Your task to perform on an android device: turn pop-ups on in chrome Image 0: 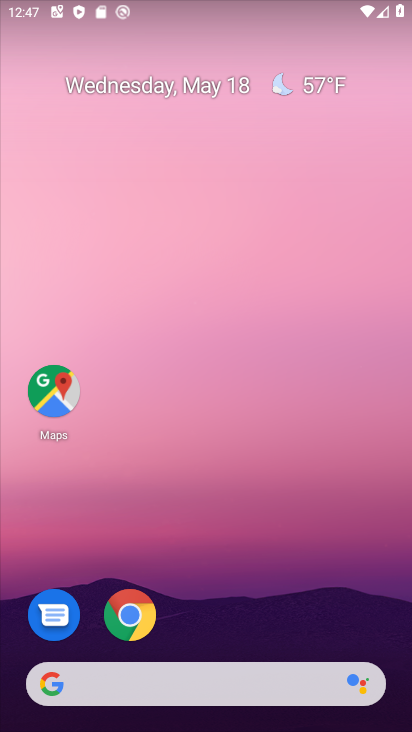
Step 0: drag from (357, 609) to (261, 49)
Your task to perform on an android device: turn pop-ups on in chrome Image 1: 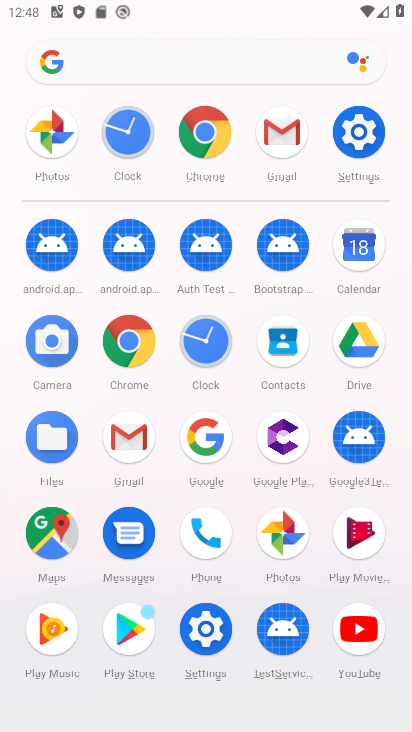
Step 1: click (223, 143)
Your task to perform on an android device: turn pop-ups on in chrome Image 2: 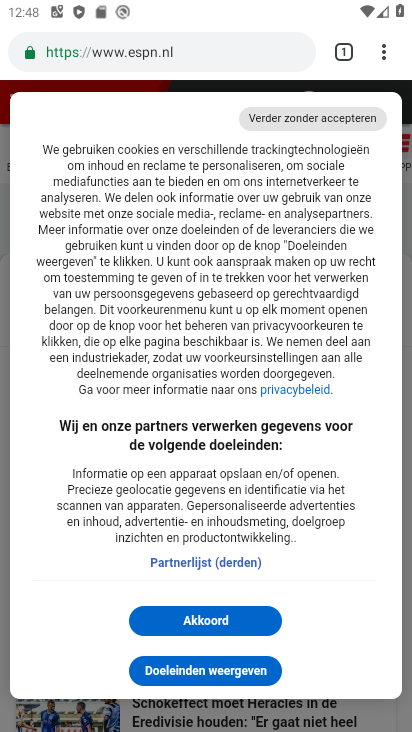
Step 2: press back button
Your task to perform on an android device: turn pop-ups on in chrome Image 3: 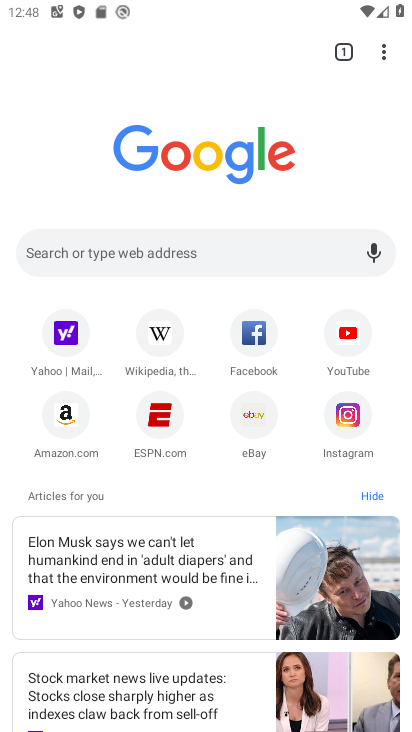
Step 3: click (381, 46)
Your task to perform on an android device: turn pop-ups on in chrome Image 4: 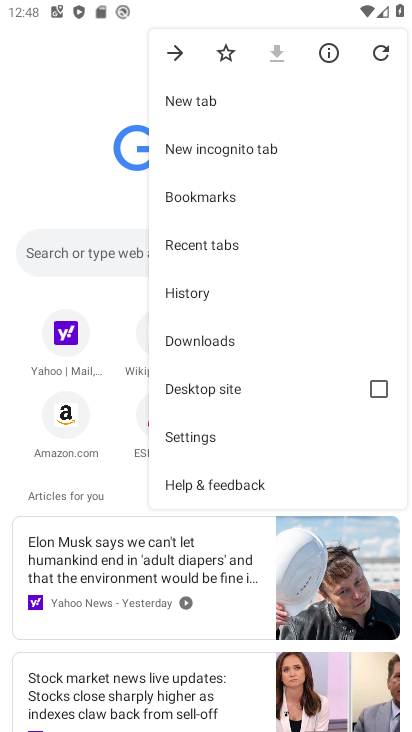
Step 4: click (225, 432)
Your task to perform on an android device: turn pop-ups on in chrome Image 5: 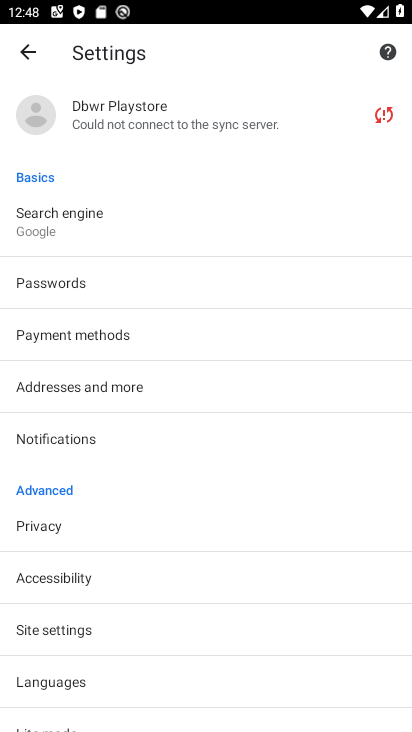
Step 5: click (122, 645)
Your task to perform on an android device: turn pop-ups on in chrome Image 6: 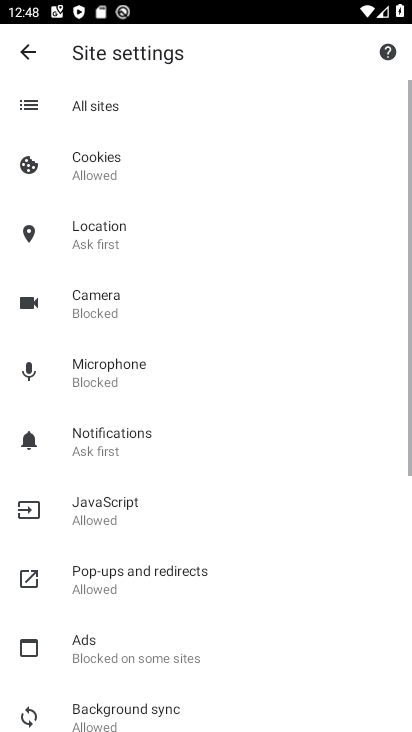
Step 6: click (167, 583)
Your task to perform on an android device: turn pop-ups on in chrome Image 7: 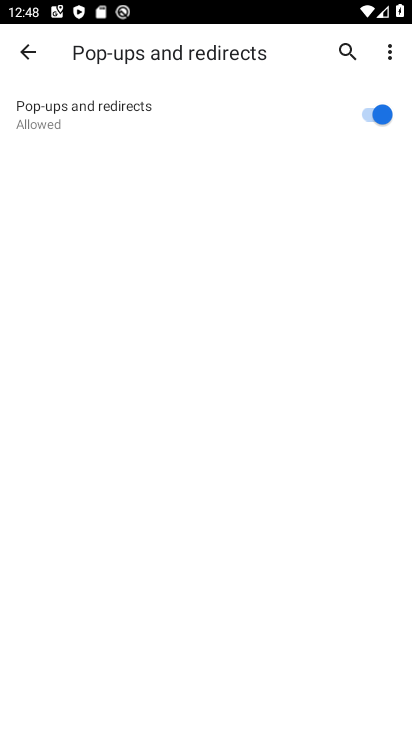
Step 7: task complete